Your task to perform on an android device: Show me popular videos on Youtube Image 0: 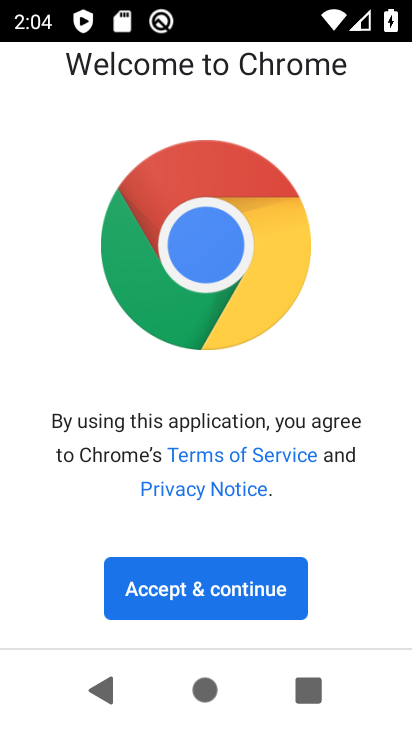
Step 0: press home button
Your task to perform on an android device: Show me popular videos on Youtube Image 1: 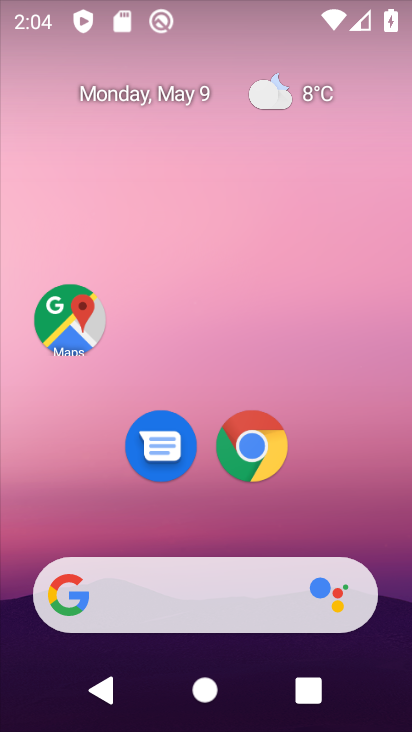
Step 1: drag from (341, 269) to (245, 143)
Your task to perform on an android device: Show me popular videos on Youtube Image 2: 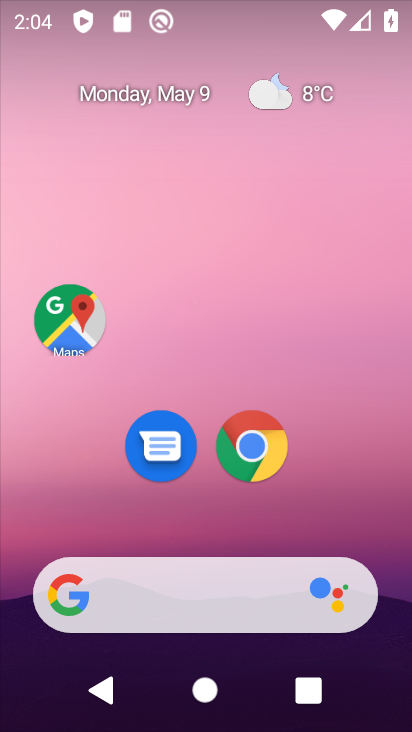
Step 2: drag from (341, 467) to (331, 33)
Your task to perform on an android device: Show me popular videos on Youtube Image 3: 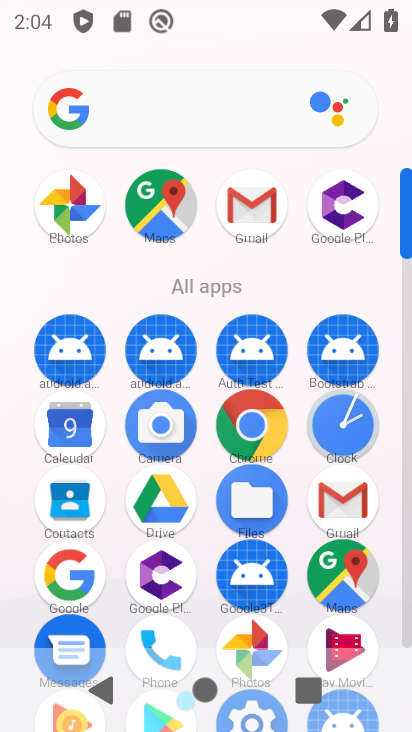
Step 3: drag from (297, 651) to (299, 225)
Your task to perform on an android device: Show me popular videos on Youtube Image 4: 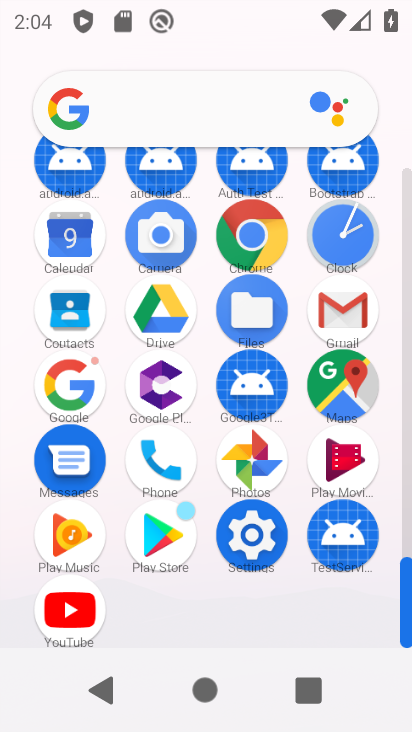
Step 4: click (80, 623)
Your task to perform on an android device: Show me popular videos on Youtube Image 5: 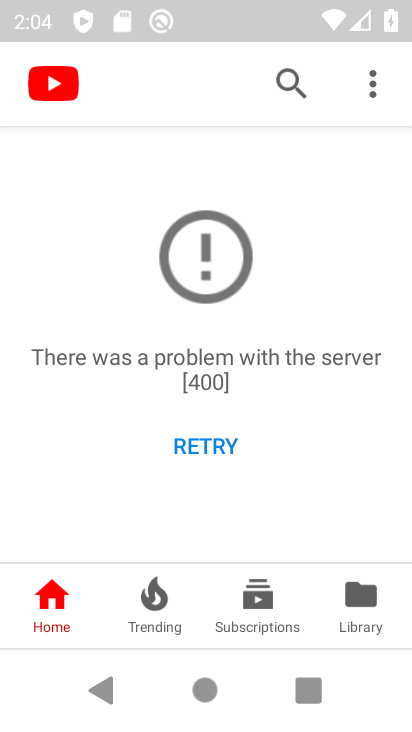
Step 5: click (155, 597)
Your task to perform on an android device: Show me popular videos on Youtube Image 6: 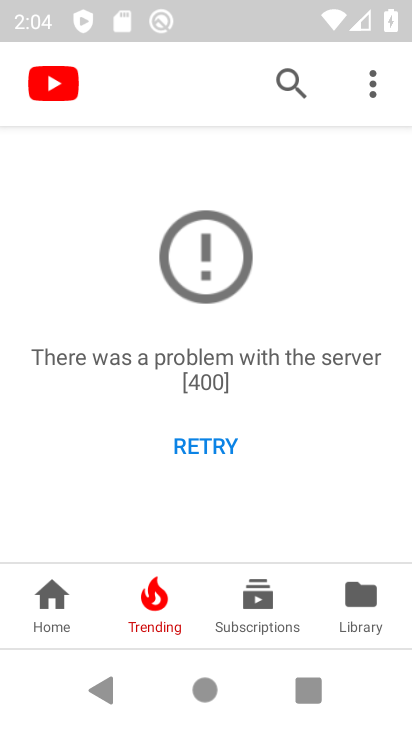
Step 6: click (201, 444)
Your task to perform on an android device: Show me popular videos on Youtube Image 7: 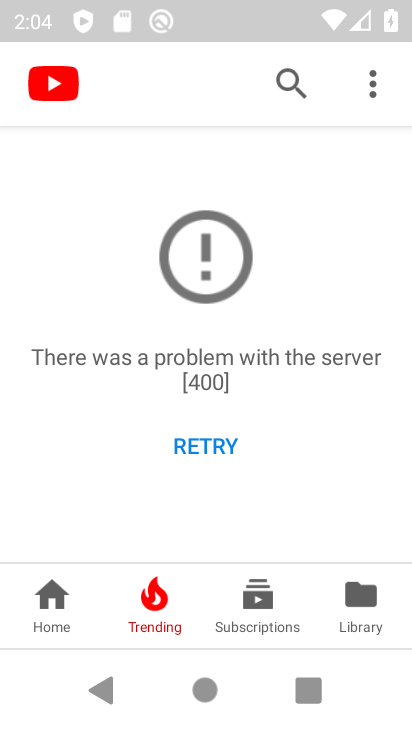
Step 7: click (201, 444)
Your task to perform on an android device: Show me popular videos on Youtube Image 8: 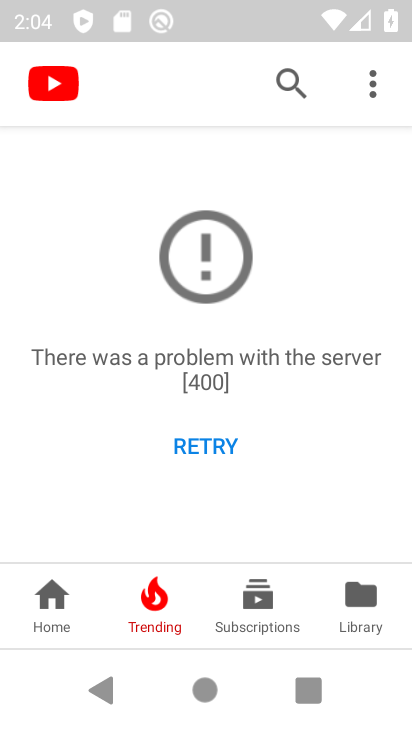
Step 8: task complete